Your task to perform on an android device: turn on the 12-hour format for clock Image 0: 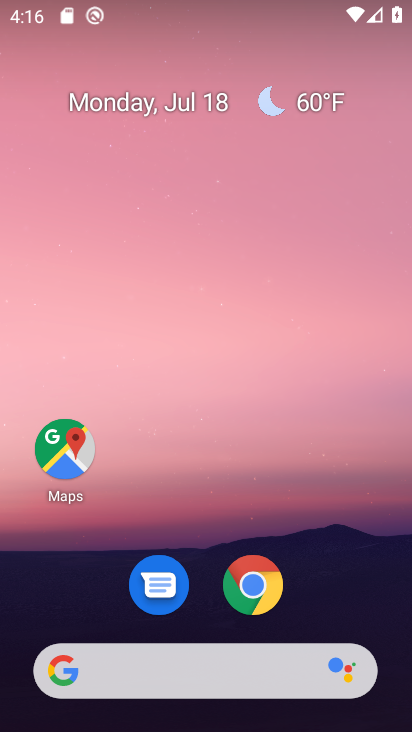
Step 0: drag from (291, 505) to (331, 2)
Your task to perform on an android device: turn on the 12-hour format for clock Image 1: 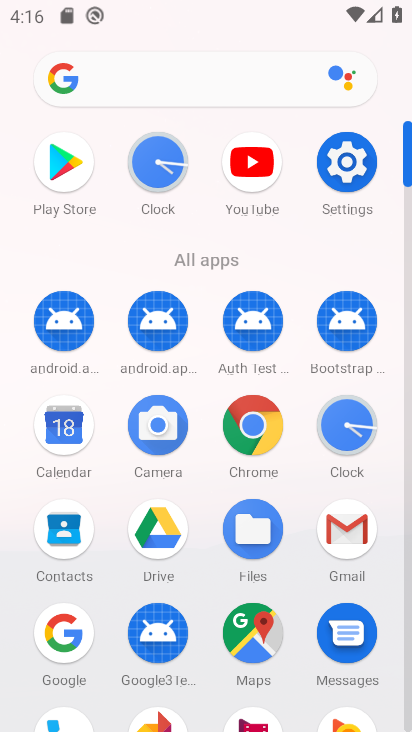
Step 1: click (168, 163)
Your task to perform on an android device: turn on the 12-hour format for clock Image 2: 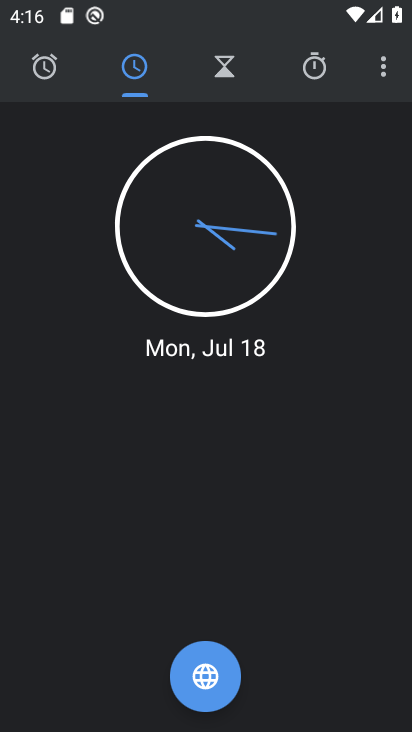
Step 2: click (382, 65)
Your task to perform on an android device: turn on the 12-hour format for clock Image 3: 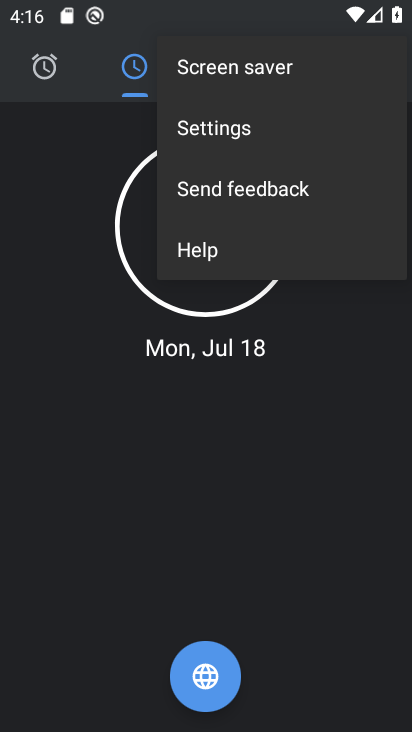
Step 3: click (302, 129)
Your task to perform on an android device: turn on the 12-hour format for clock Image 4: 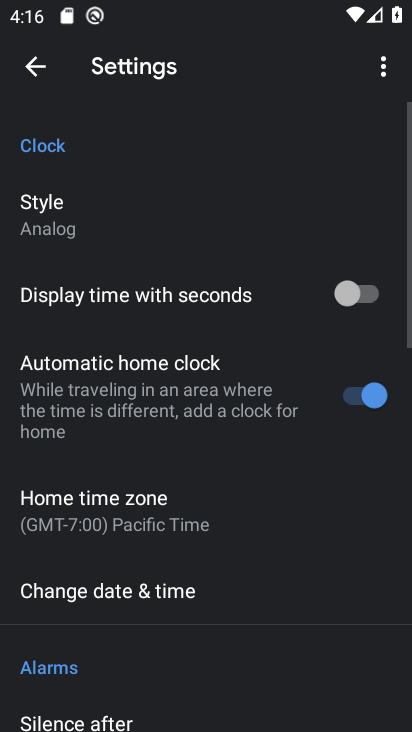
Step 4: click (228, 594)
Your task to perform on an android device: turn on the 12-hour format for clock Image 5: 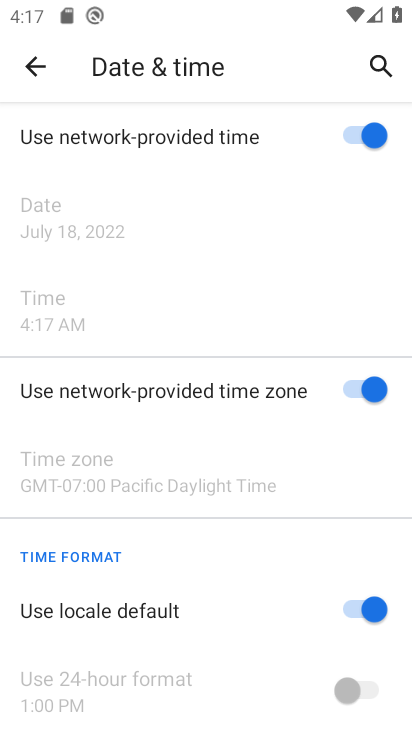
Step 5: task complete